Your task to perform on an android device: move an email to a new category in the gmail app Image 0: 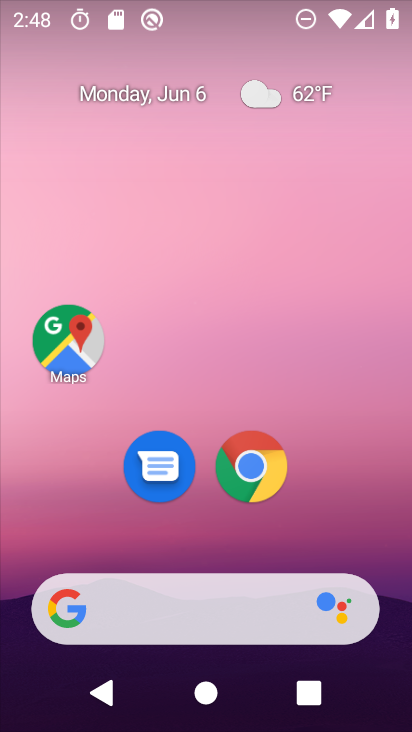
Step 0: drag from (208, 544) to (221, 123)
Your task to perform on an android device: move an email to a new category in the gmail app Image 1: 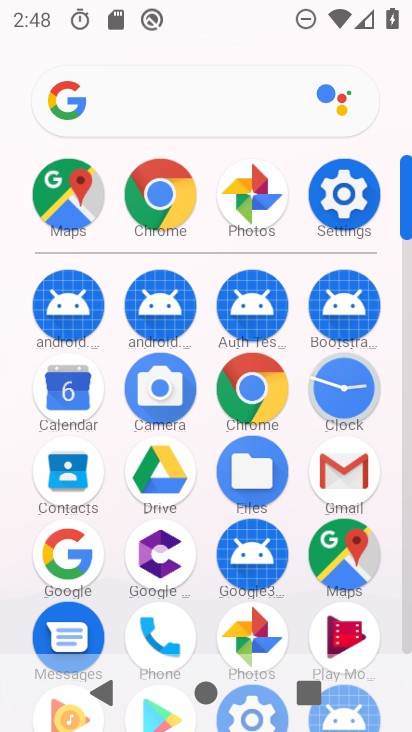
Step 1: click (350, 464)
Your task to perform on an android device: move an email to a new category in the gmail app Image 2: 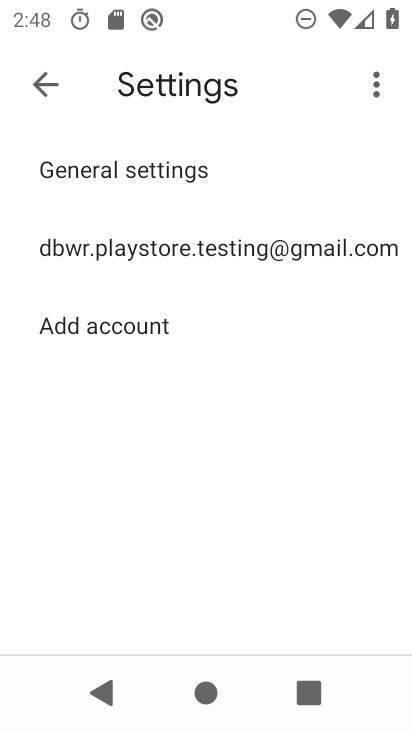
Step 2: click (229, 251)
Your task to perform on an android device: move an email to a new category in the gmail app Image 3: 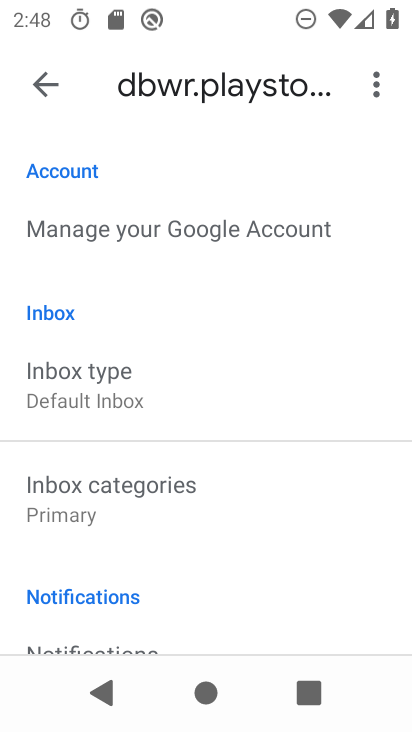
Step 3: click (49, 424)
Your task to perform on an android device: move an email to a new category in the gmail app Image 4: 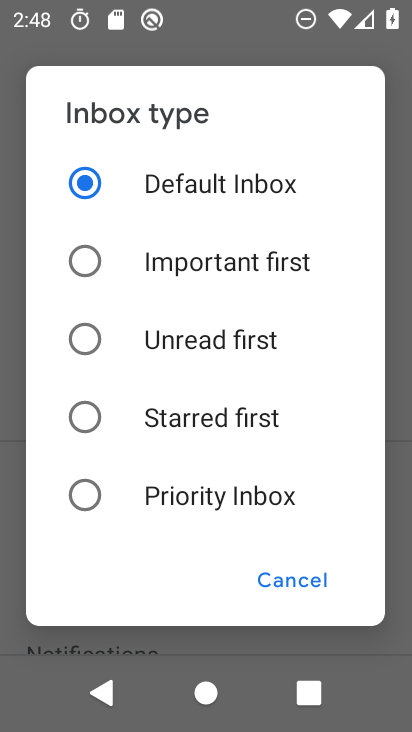
Step 4: press back button
Your task to perform on an android device: move an email to a new category in the gmail app Image 5: 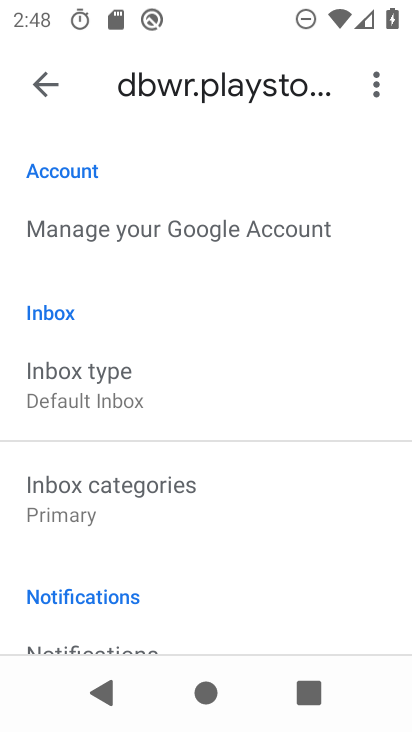
Step 5: press back button
Your task to perform on an android device: move an email to a new category in the gmail app Image 6: 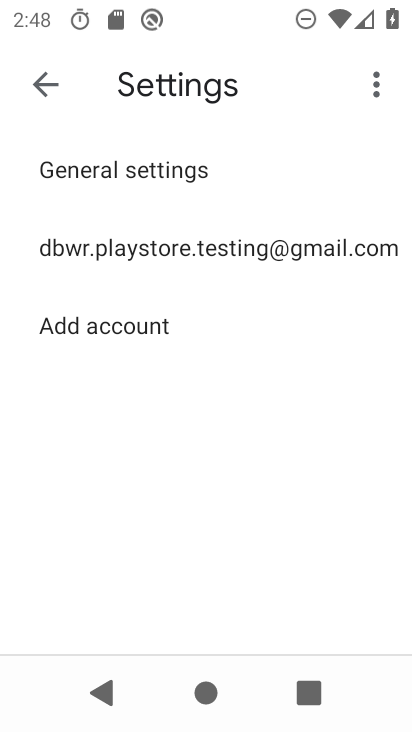
Step 6: click (50, 87)
Your task to perform on an android device: move an email to a new category in the gmail app Image 7: 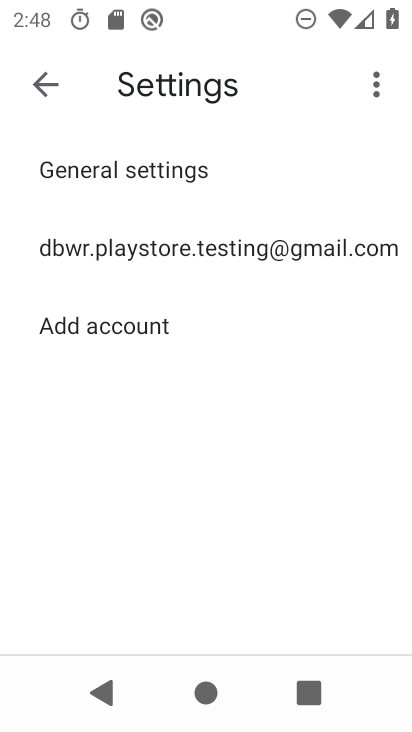
Step 7: press back button
Your task to perform on an android device: move an email to a new category in the gmail app Image 8: 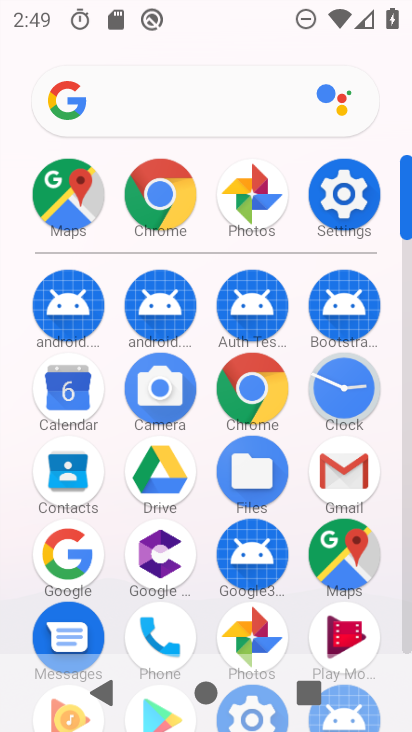
Step 8: click (338, 473)
Your task to perform on an android device: move an email to a new category in the gmail app Image 9: 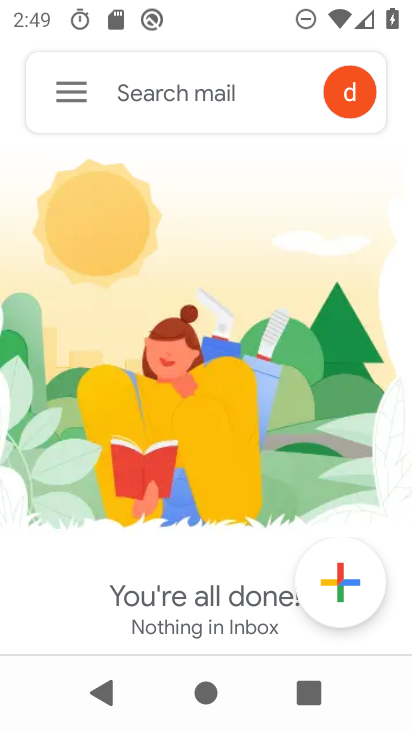
Step 9: click (72, 108)
Your task to perform on an android device: move an email to a new category in the gmail app Image 10: 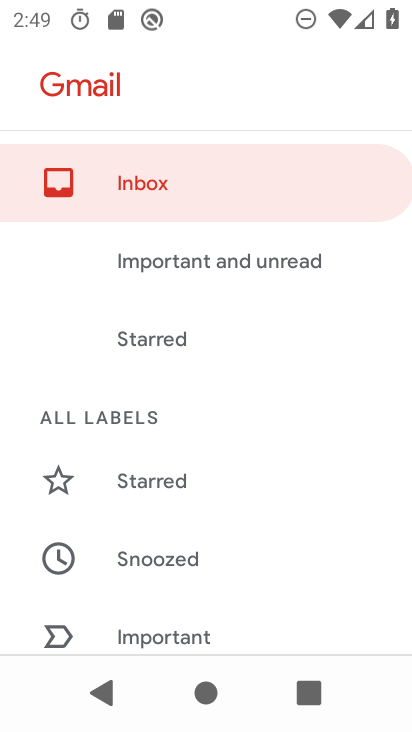
Step 10: drag from (148, 620) to (196, 333)
Your task to perform on an android device: move an email to a new category in the gmail app Image 11: 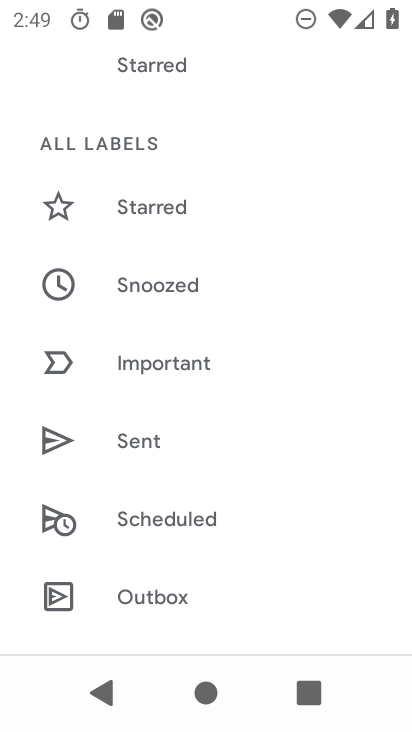
Step 11: drag from (196, 537) to (253, 271)
Your task to perform on an android device: move an email to a new category in the gmail app Image 12: 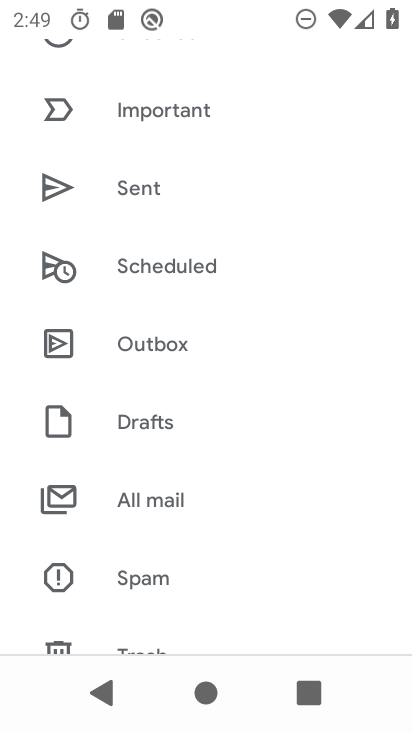
Step 12: click (137, 505)
Your task to perform on an android device: move an email to a new category in the gmail app Image 13: 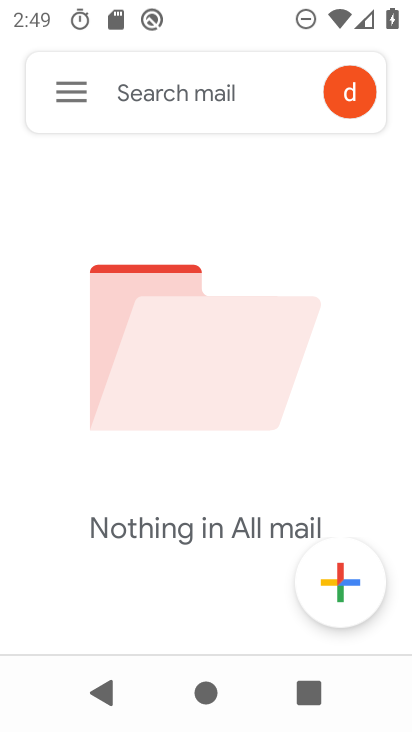
Step 13: task complete